Your task to perform on an android device: show emergency info Image 0: 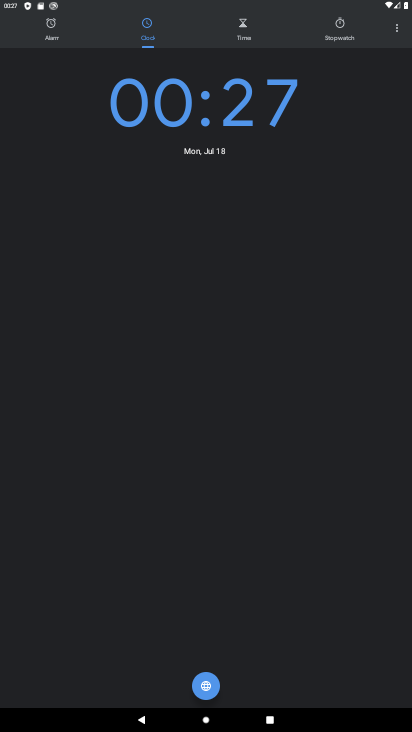
Step 0: press home button
Your task to perform on an android device: show emergency info Image 1: 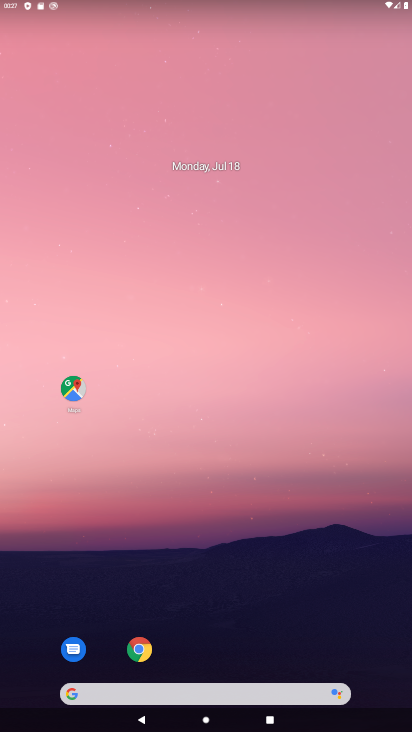
Step 1: drag from (172, 619) to (193, 307)
Your task to perform on an android device: show emergency info Image 2: 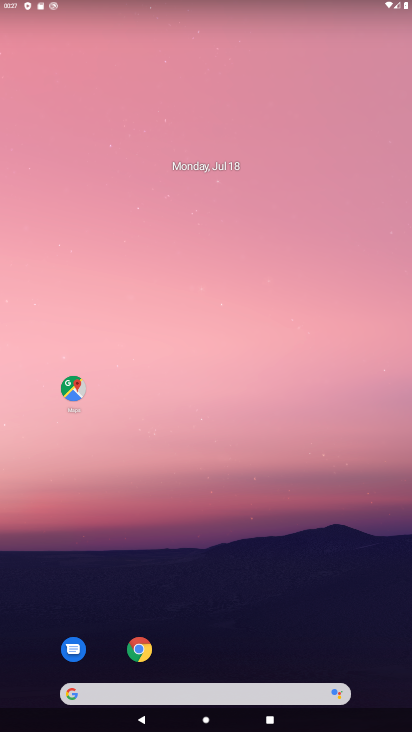
Step 2: drag from (185, 619) to (194, 162)
Your task to perform on an android device: show emergency info Image 3: 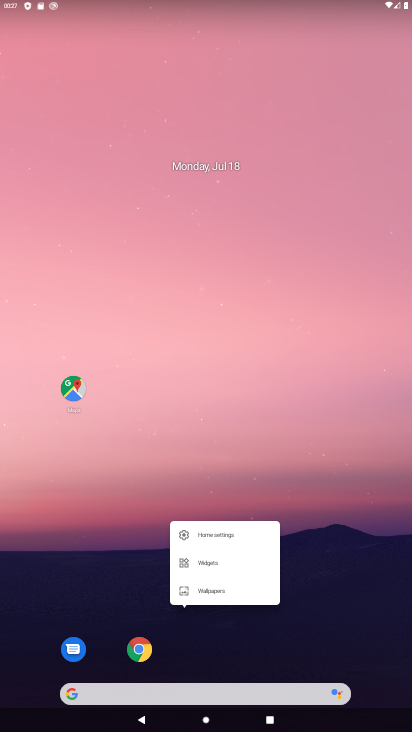
Step 3: click (269, 617)
Your task to perform on an android device: show emergency info Image 4: 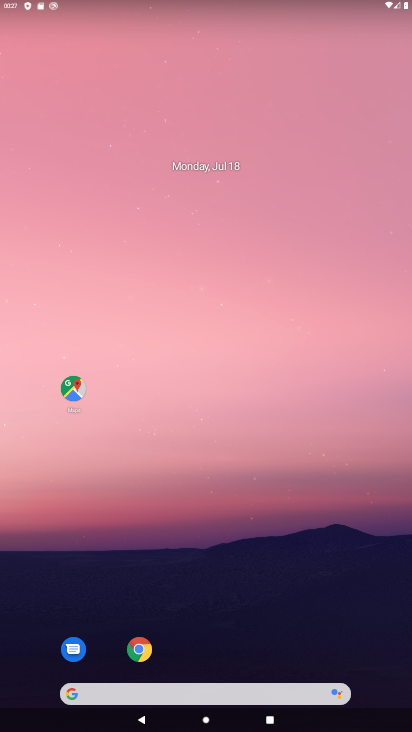
Step 4: drag from (269, 572) to (261, 118)
Your task to perform on an android device: show emergency info Image 5: 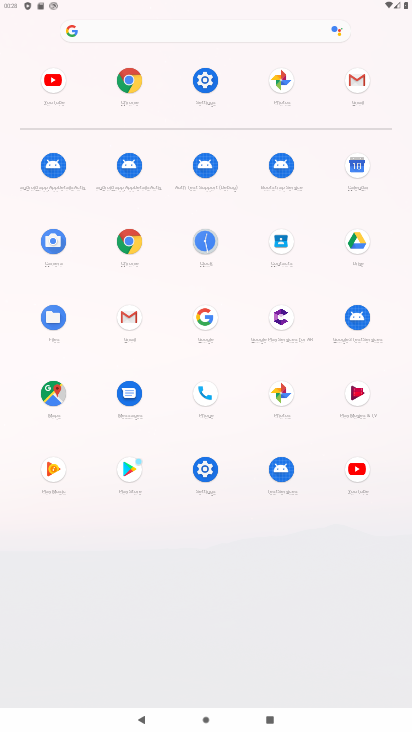
Step 5: click (203, 480)
Your task to perform on an android device: show emergency info Image 6: 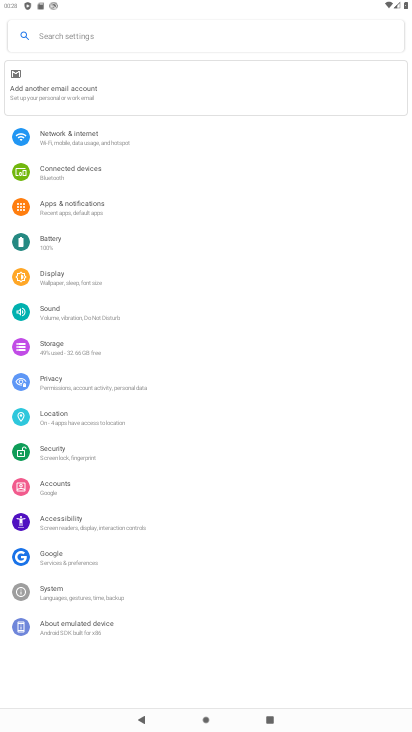
Step 6: click (71, 615)
Your task to perform on an android device: show emergency info Image 7: 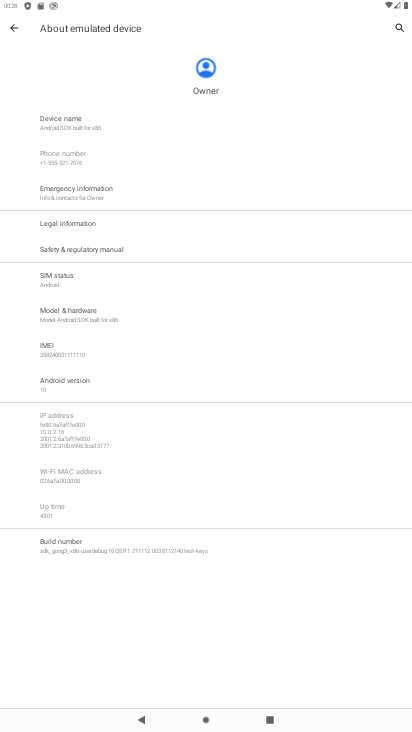
Step 7: click (96, 198)
Your task to perform on an android device: show emergency info Image 8: 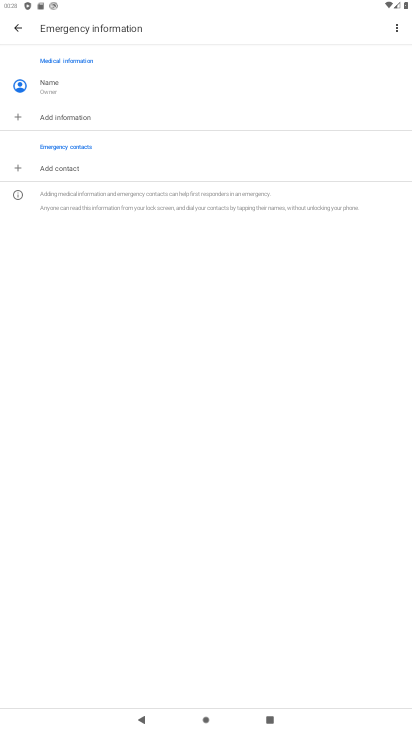
Step 8: task complete